Your task to perform on an android device: Open the calendar and show me this week's events? Image 0: 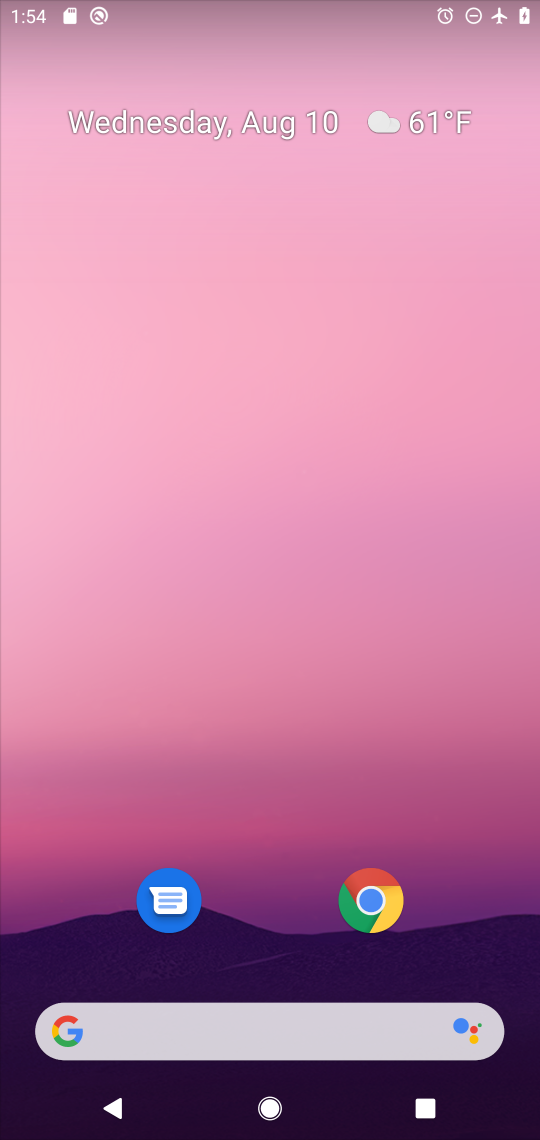
Step 0: drag from (252, 928) to (262, 0)
Your task to perform on an android device: Open the calendar and show me this week's events? Image 1: 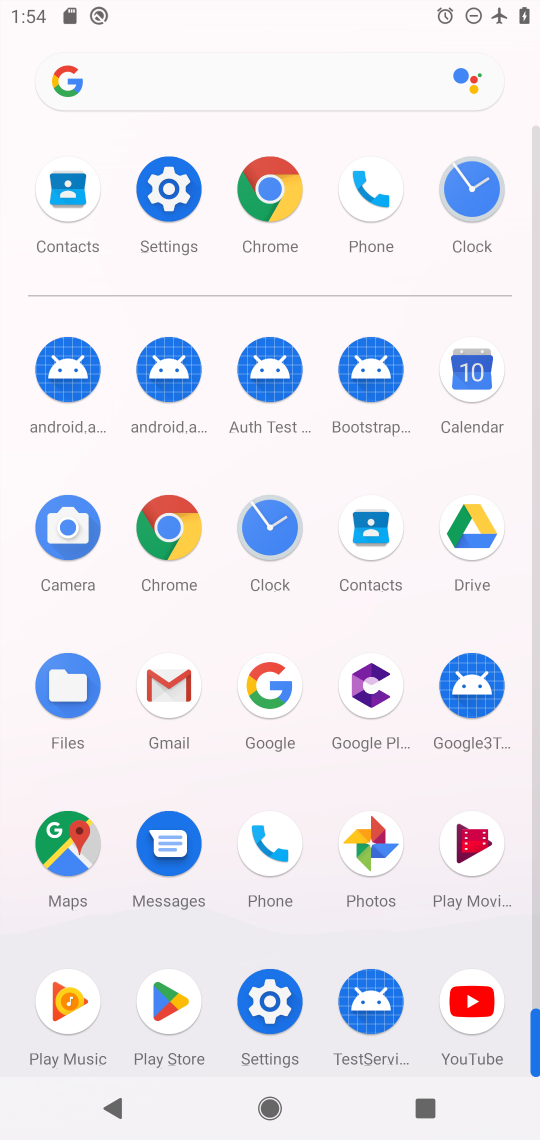
Step 1: click (476, 371)
Your task to perform on an android device: Open the calendar and show me this week's events? Image 2: 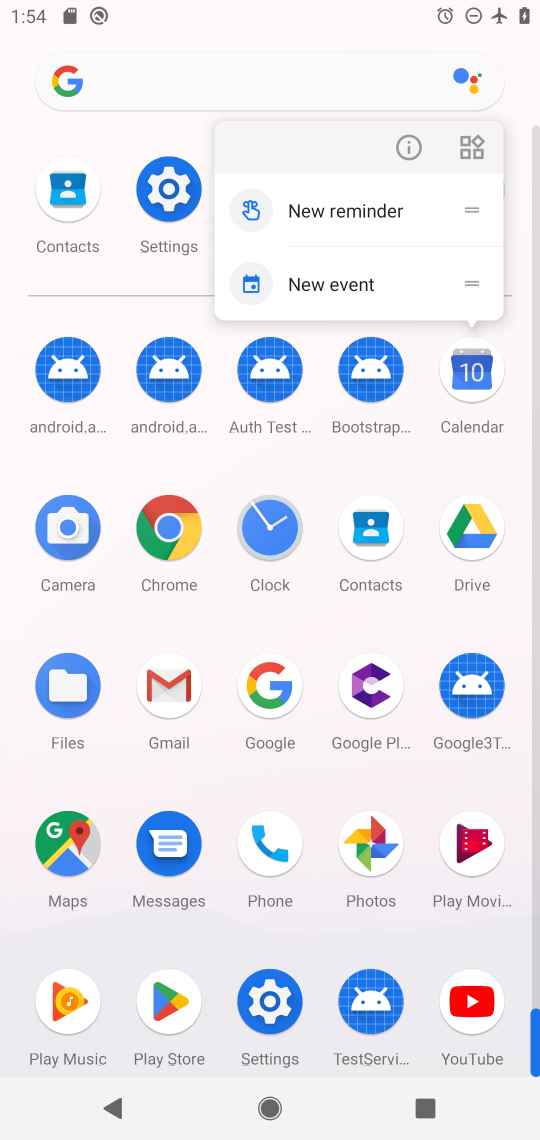
Step 2: click (476, 370)
Your task to perform on an android device: Open the calendar and show me this week's events? Image 3: 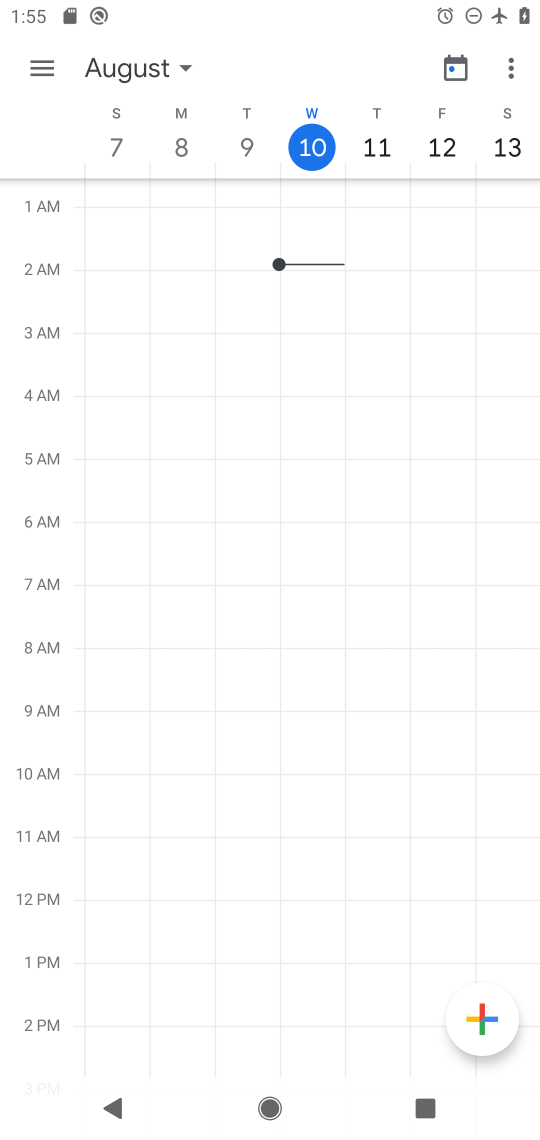
Step 3: task complete